Your task to perform on an android device: Search for Mexican restaurants on Maps Image 0: 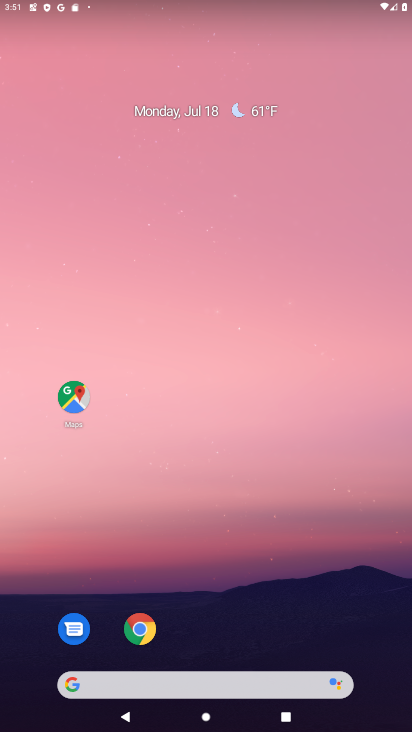
Step 0: drag from (183, 670) to (175, 365)
Your task to perform on an android device: Search for Mexican restaurants on Maps Image 1: 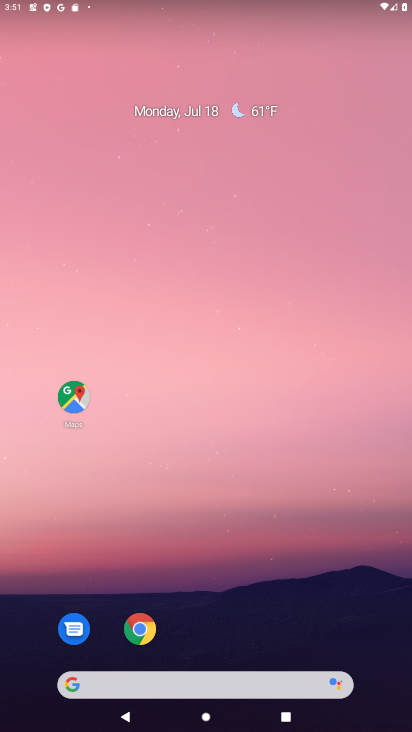
Step 1: click (69, 396)
Your task to perform on an android device: Search for Mexican restaurants on Maps Image 2: 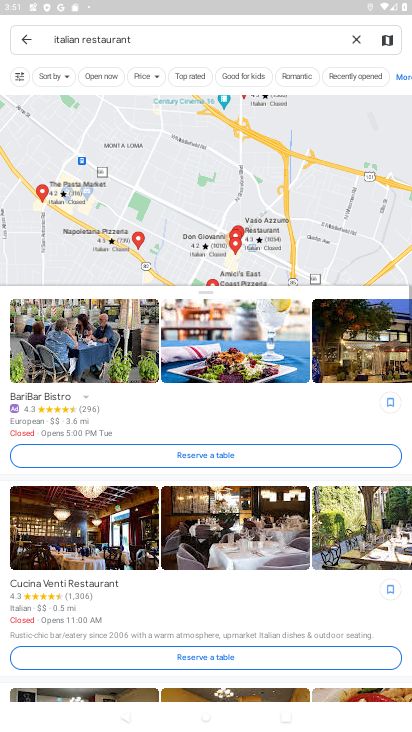
Step 2: click (157, 38)
Your task to perform on an android device: Search for Mexican restaurants on Maps Image 3: 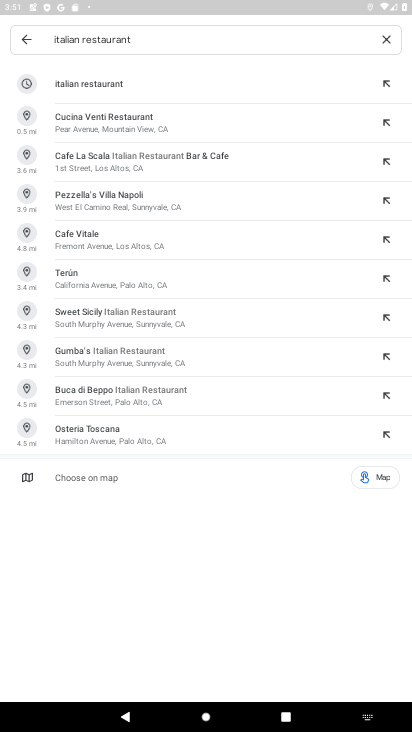
Step 3: click (380, 37)
Your task to perform on an android device: Search for Mexican restaurants on Maps Image 4: 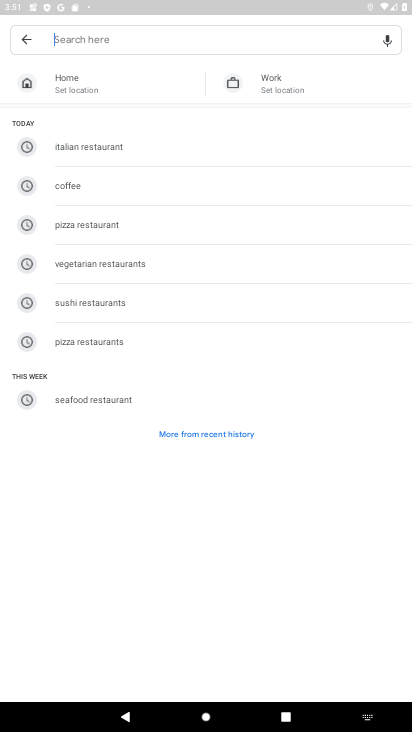
Step 4: type " Mexican restaurants"
Your task to perform on an android device: Search for Mexican restaurants on Maps Image 5: 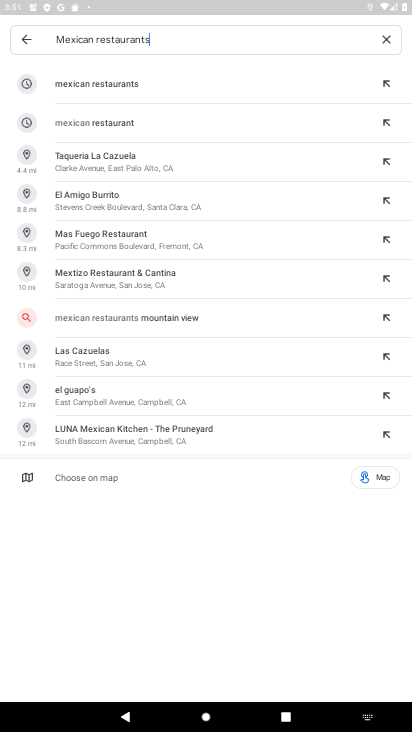
Step 5: click (84, 92)
Your task to perform on an android device: Search for Mexican restaurants on Maps Image 6: 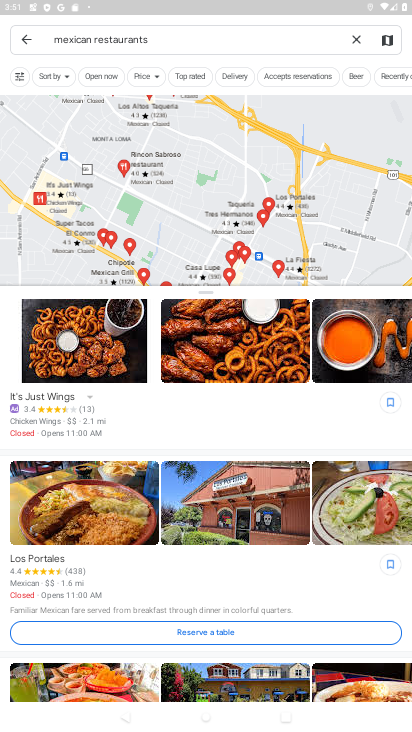
Step 6: task complete